Your task to perform on an android device: Open wifi settings Image 0: 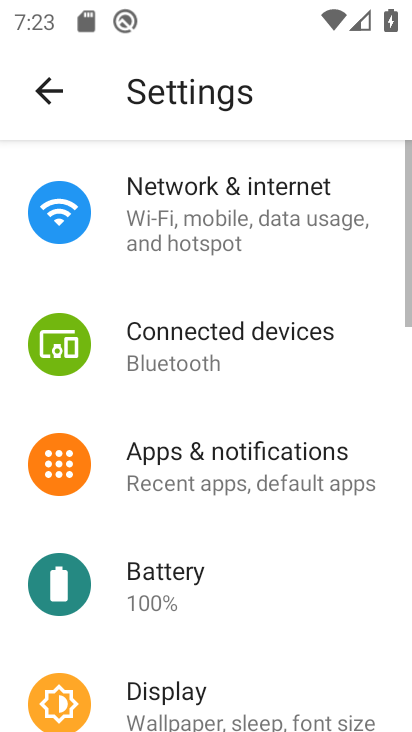
Step 0: press home button
Your task to perform on an android device: Open wifi settings Image 1: 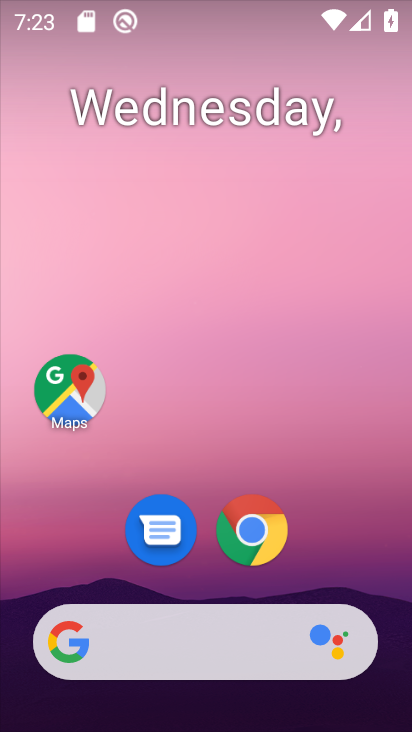
Step 1: drag from (396, 641) to (259, 55)
Your task to perform on an android device: Open wifi settings Image 2: 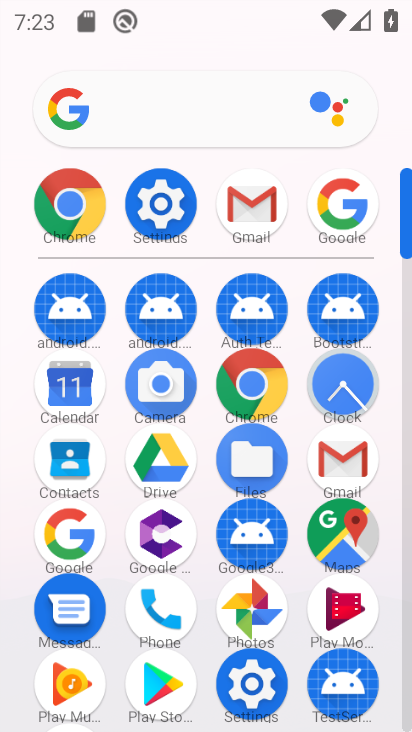
Step 2: click (168, 190)
Your task to perform on an android device: Open wifi settings Image 3: 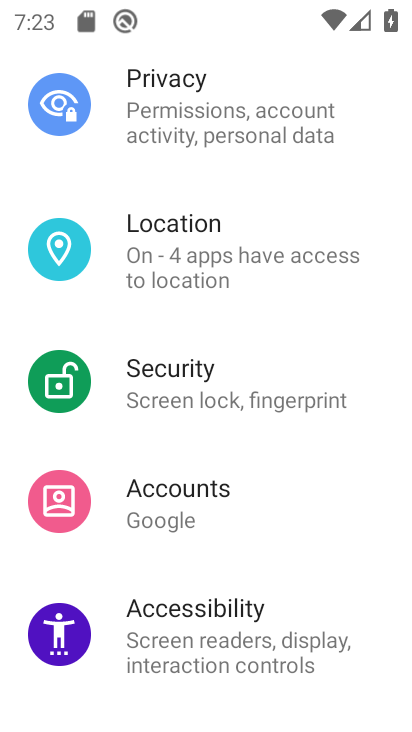
Step 3: drag from (168, 190) to (193, 728)
Your task to perform on an android device: Open wifi settings Image 4: 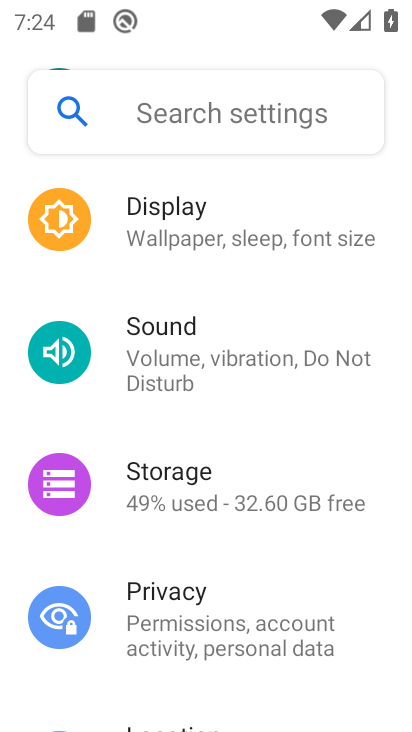
Step 4: drag from (202, 191) to (198, 680)
Your task to perform on an android device: Open wifi settings Image 5: 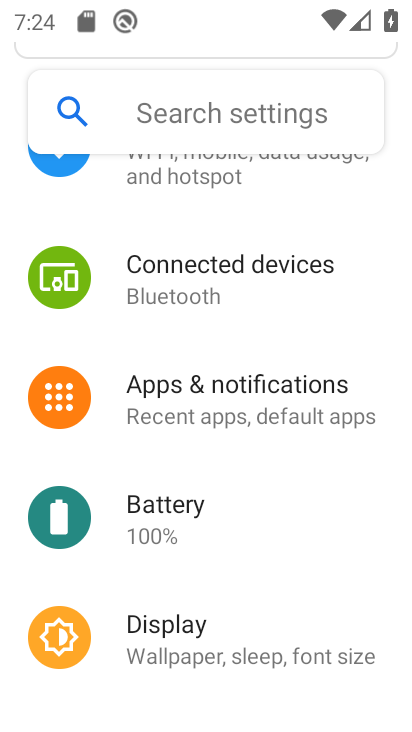
Step 5: drag from (176, 211) to (149, 689)
Your task to perform on an android device: Open wifi settings Image 6: 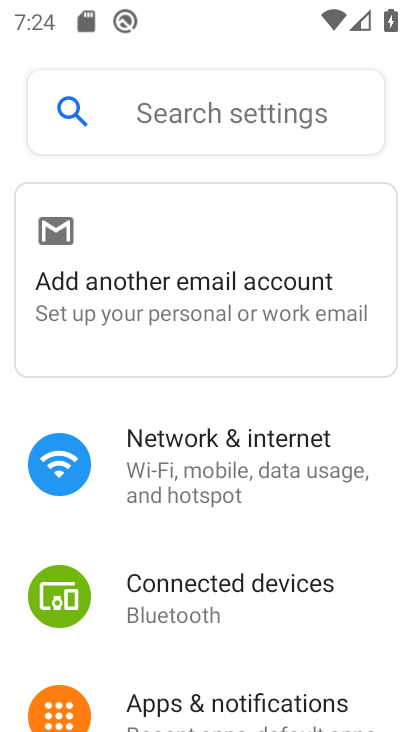
Step 6: click (204, 444)
Your task to perform on an android device: Open wifi settings Image 7: 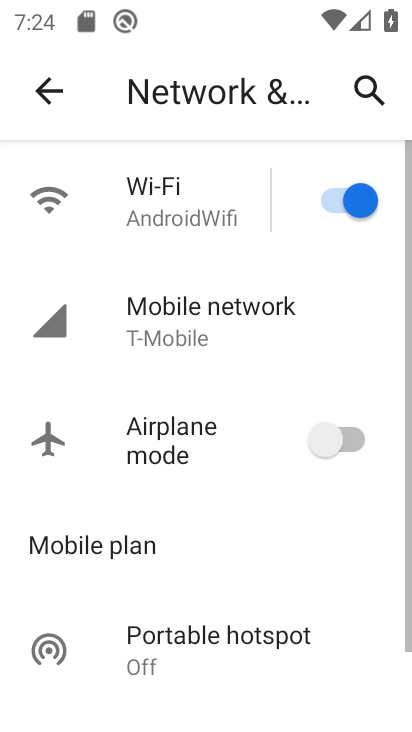
Step 7: click (201, 177)
Your task to perform on an android device: Open wifi settings Image 8: 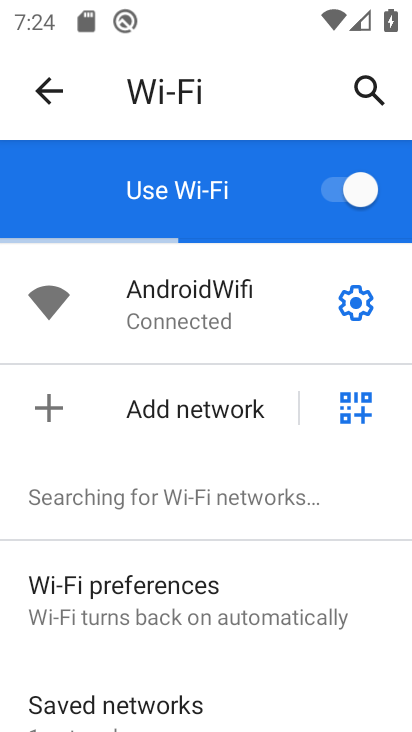
Step 8: task complete